Your task to perform on an android device: change the clock display to digital Image 0: 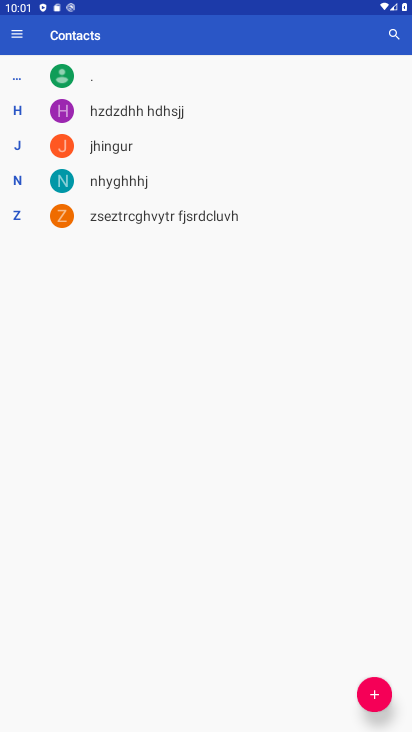
Step 0: press home button
Your task to perform on an android device: change the clock display to digital Image 1: 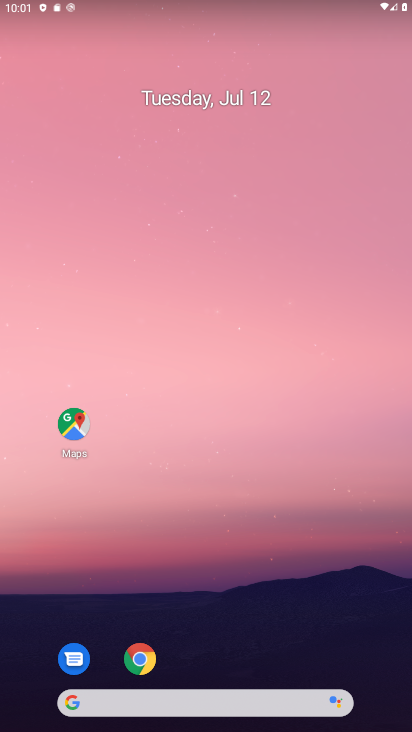
Step 1: drag from (200, 695) to (242, 83)
Your task to perform on an android device: change the clock display to digital Image 2: 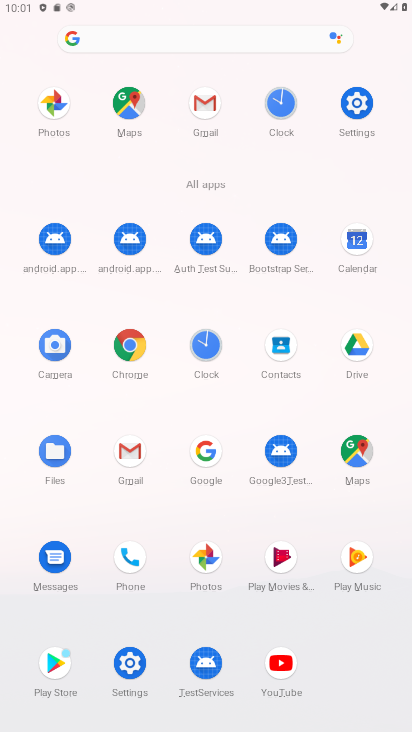
Step 2: click (281, 92)
Your task to perform on an android device: change the clock display to digital Image 3: 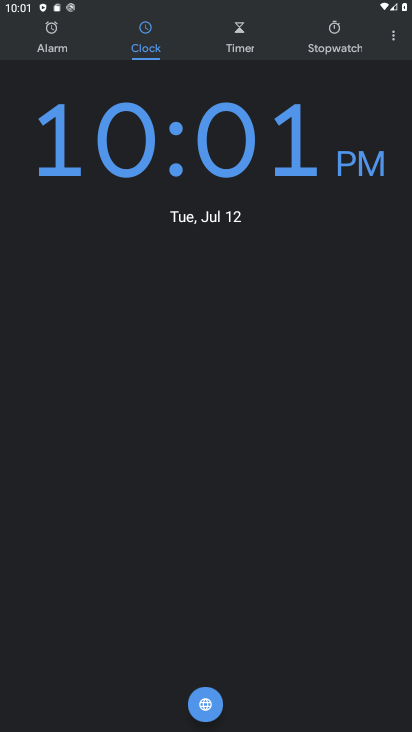
Step 3: click (394, 37)
Your task to perform on an android device: change the clock display to digital Image 4: 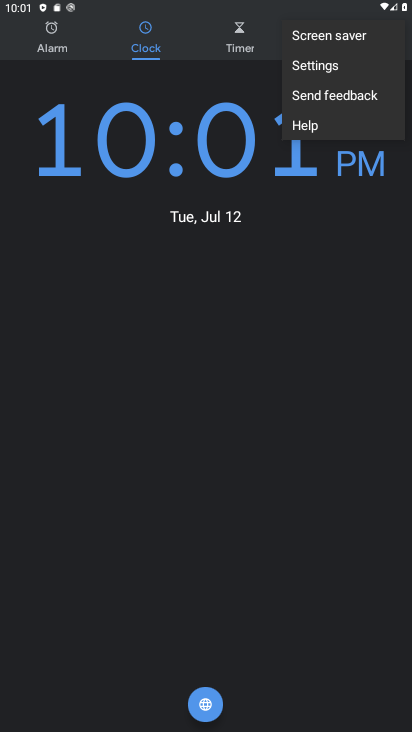
Step 4: click (319, 72)
Your task to perform on an android device: change the clock display to digital Image 5: 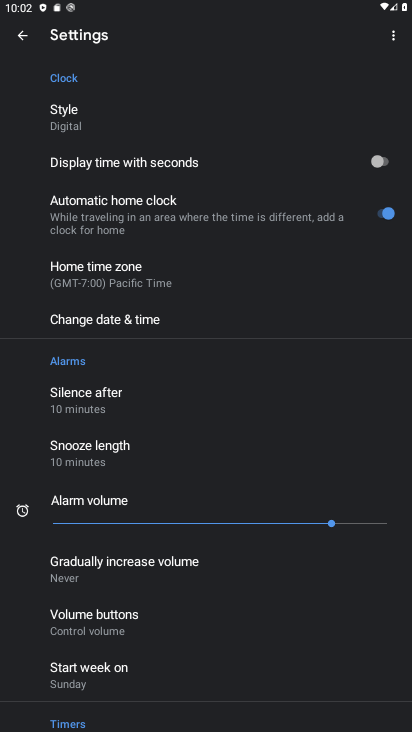
Step 5: click (81, 114)
Your task to perform on an android device: change the clock display to digital Image 6: 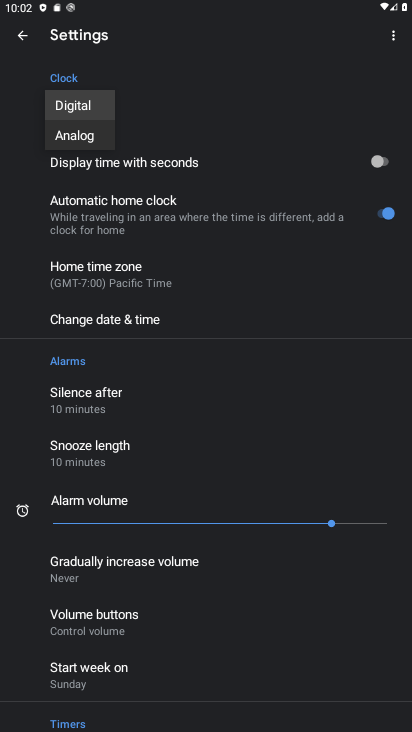
Step 6: click (90, 109)
Your task to perform on an android device: change the clock display to digital Image 7: 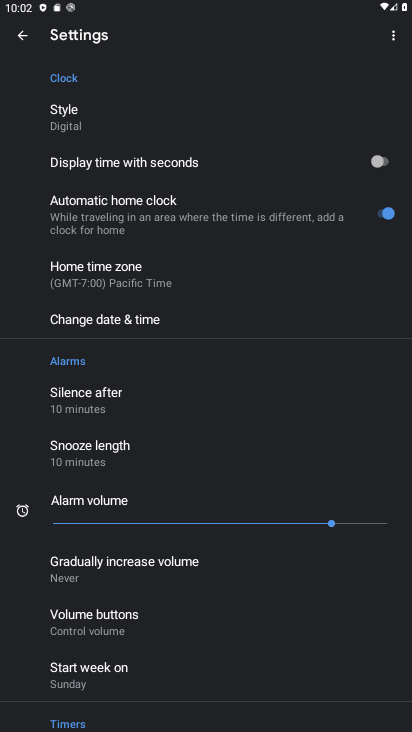
Step 7: task complete